Your task to perform on an android device: open chrome privacy settings Image 0: 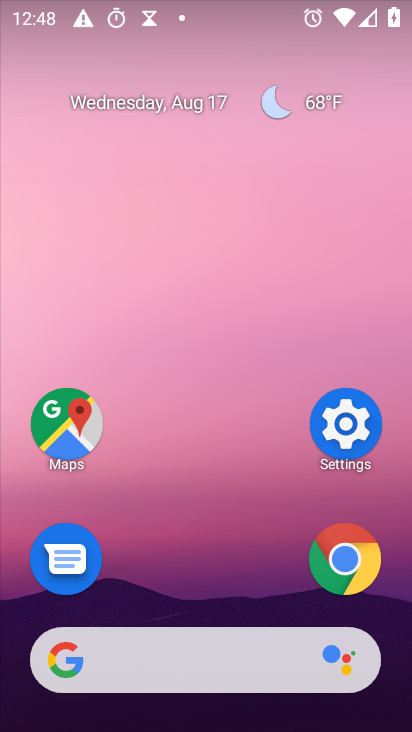
Step 0: click (355, 540)
Your task to perform on an android device: open chrome privacy settings Image 1: 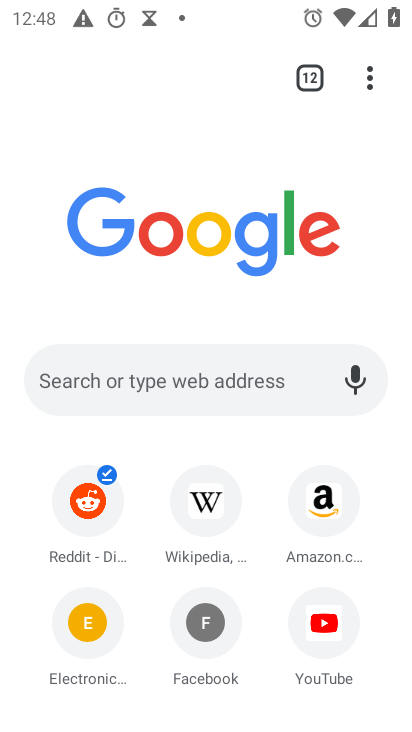
Step 1: drag from (371, 76) to (187, 645)
Your task to perform on an android device: open chrome privacy settings Image 2: 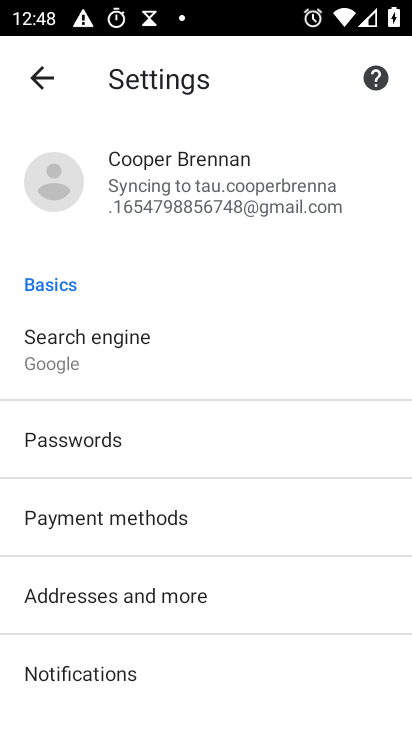
Step 2: drag from (165, 659) to (270, 189)
Your task to perform on an android device: open chrome privacy settings Image 3: 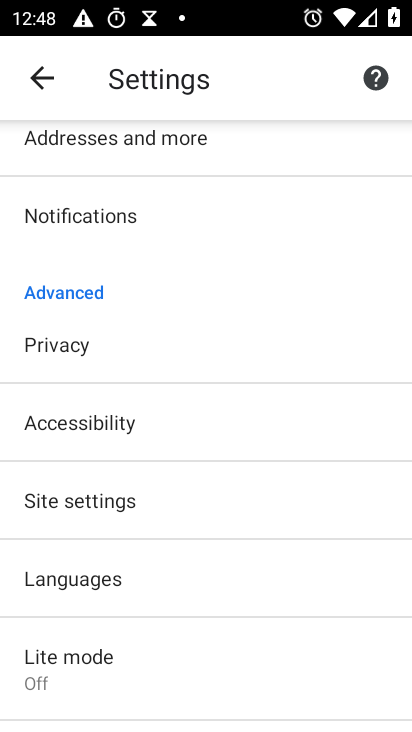
Step 3: click (68, 353)
Your task to perform on an android device: open chrome privacy settings Image 4: 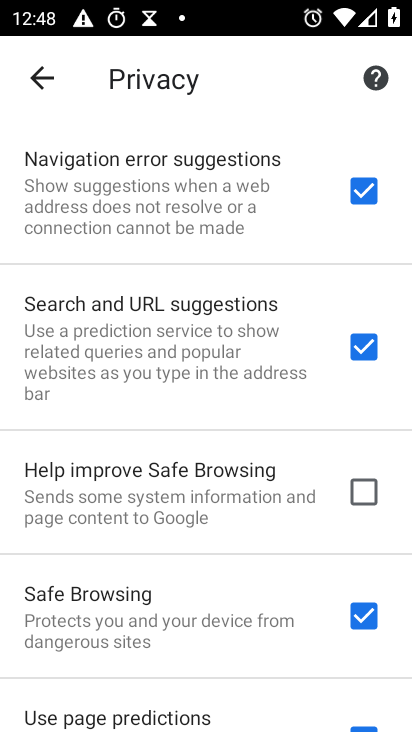
Step 4: task complete